Your task to perform on an android device: Set the phone to "Do not disturb". Image 0: 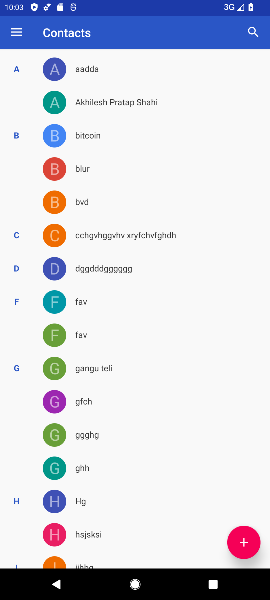
Step 0: press home button
Your task to perform on an android device: Set the phone to "Do not disturb". Image 1: 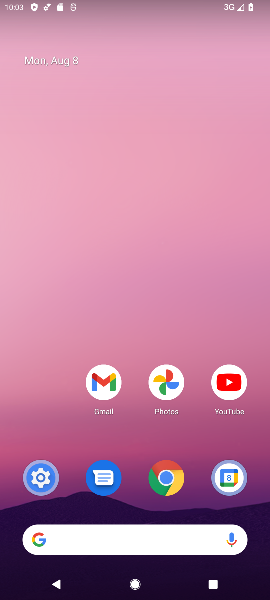
Step 1: drag from (167, 532) to (153, 85)
Your task to perform on an android device: Set the phone to "Do not disturb". Image 2: 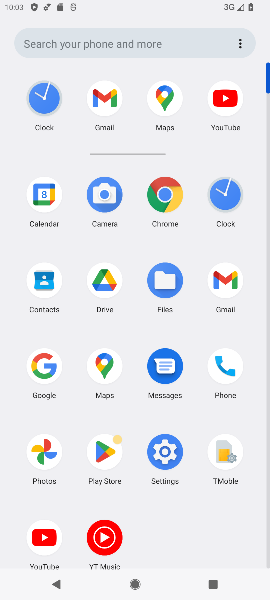
Step 2: drag from (108, 2) to (123, 426)
Your task to perform on an android device: Set the phone to "Do not disturb". Image 3: 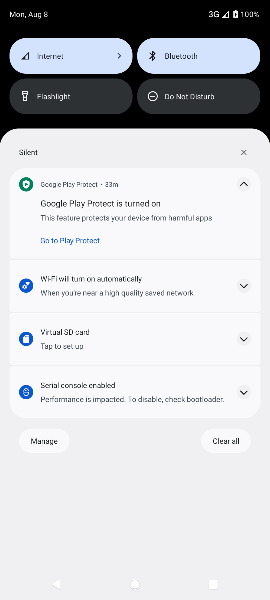
Step 3: click (179, 88)
Your task to perform on an android device: Set the phone to "Do not disturb". Image 4: 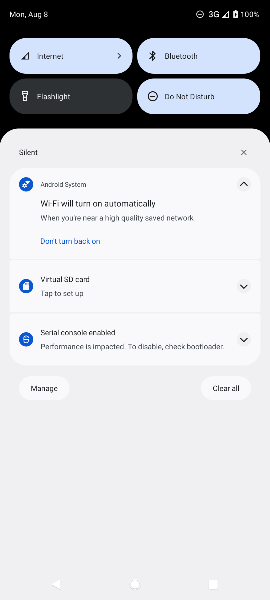
Step 4: task complete